Your task to perform on an android device: Turn off the flashlight Image 0: 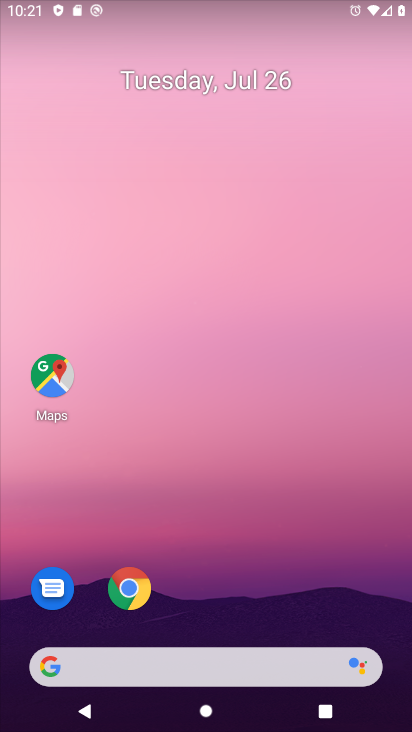
Step 0: drag from (205, 612) to (284, 63)
Your task to perform on an android device: Turn off the flashlight Image 1: 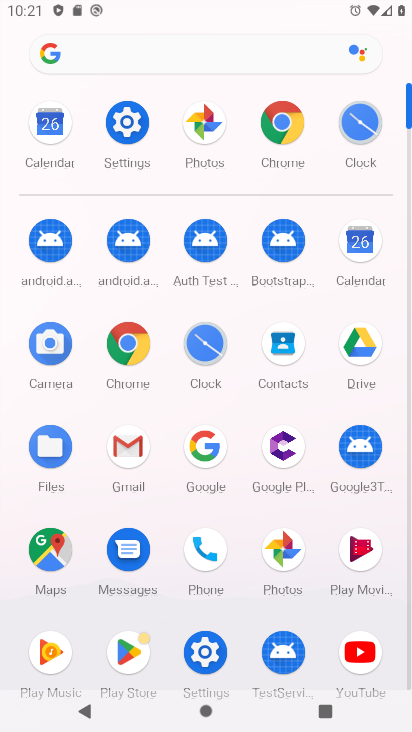
Step 1: click (126, 108)
Your task to perform on an android device: Turn off the flashlight Image 2: 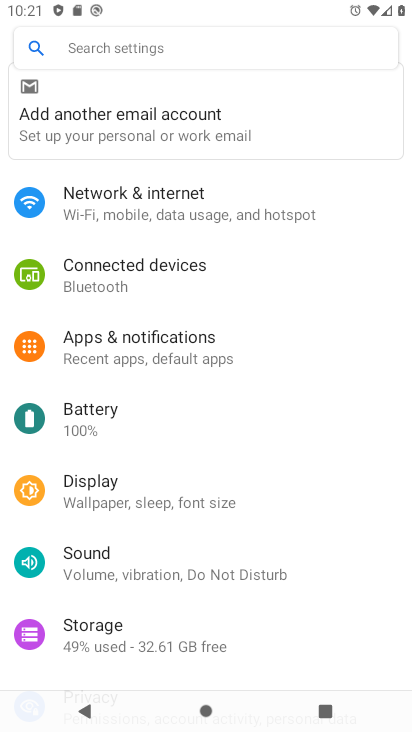
Step 2: click (118, 43)
Your task to perform on an android device: Turn off the flashlight Image 3: 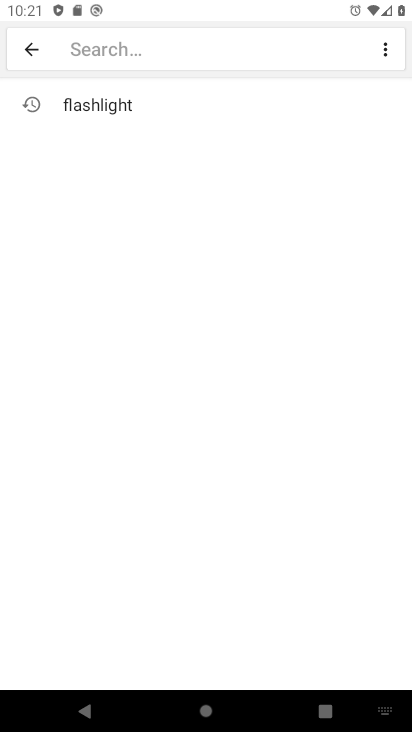
Step 3: type "flash"
Your task to perform on an android device: Turn off the flashlight Image 4: 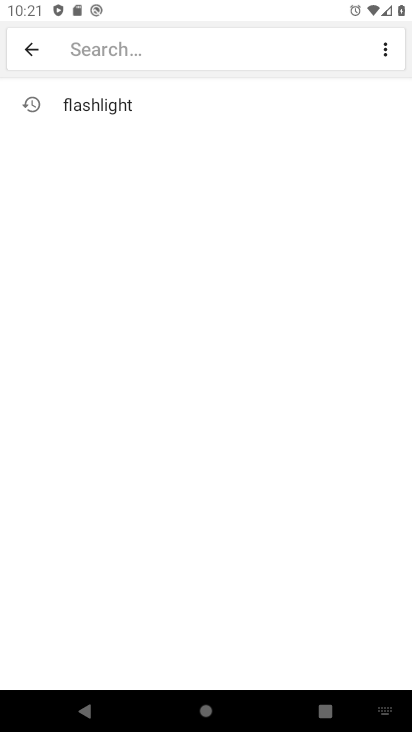
Step 4: click (157, 98)
Your task to perform on an android device: Turn off the flashlight Image 5: 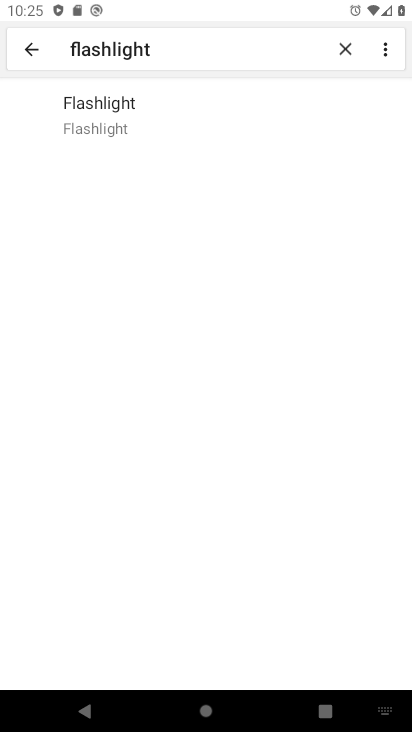
Step 5: click (135, 118)
Your task to perform on an android device: Turn off the flashlight Image 6: 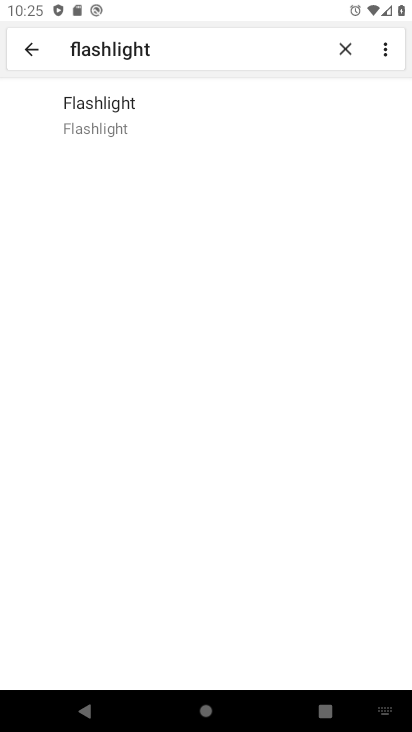
Step 6: task complete